Your task to perform on an android device: toggle airplane mode Image 0: 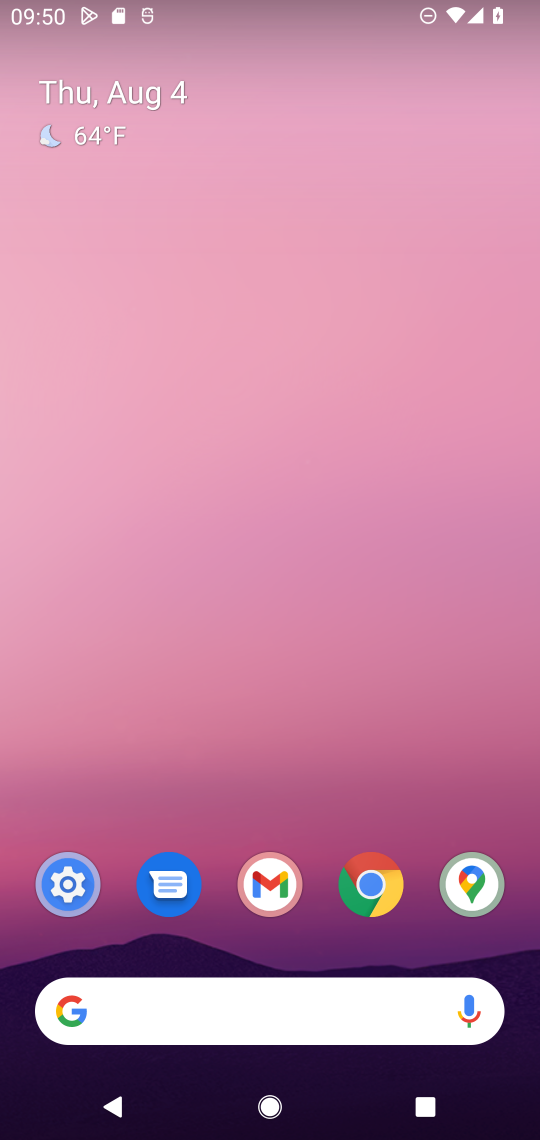
Step 0: drag from (145, 858) to (226, 62)
Your task to perform on an android device: toggle airplane mode Image 1: 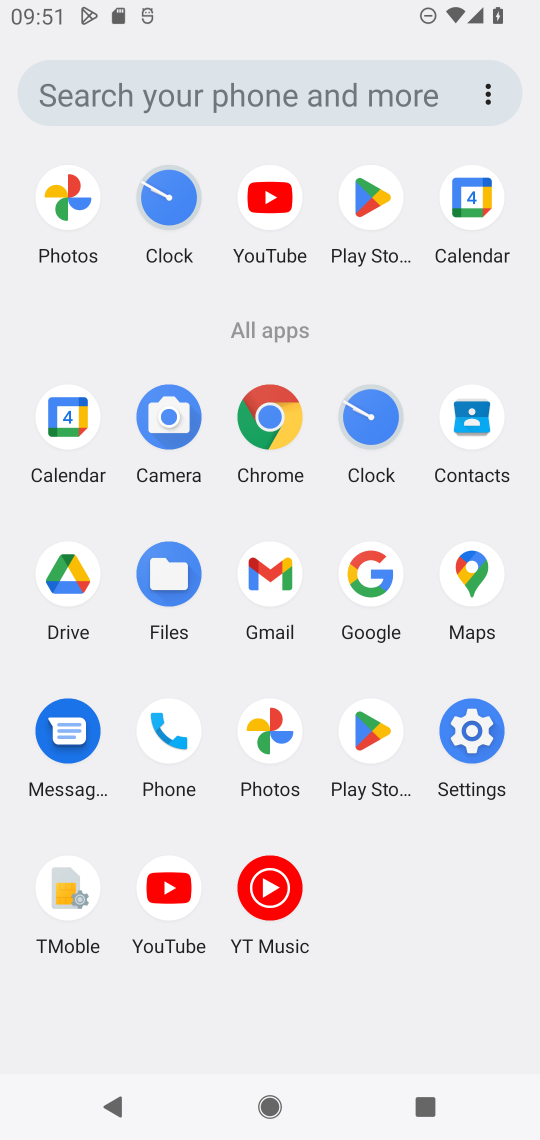
Step 1: click (474, 764)
Your task to perform on an android device: toggle airplane mode Image 2: 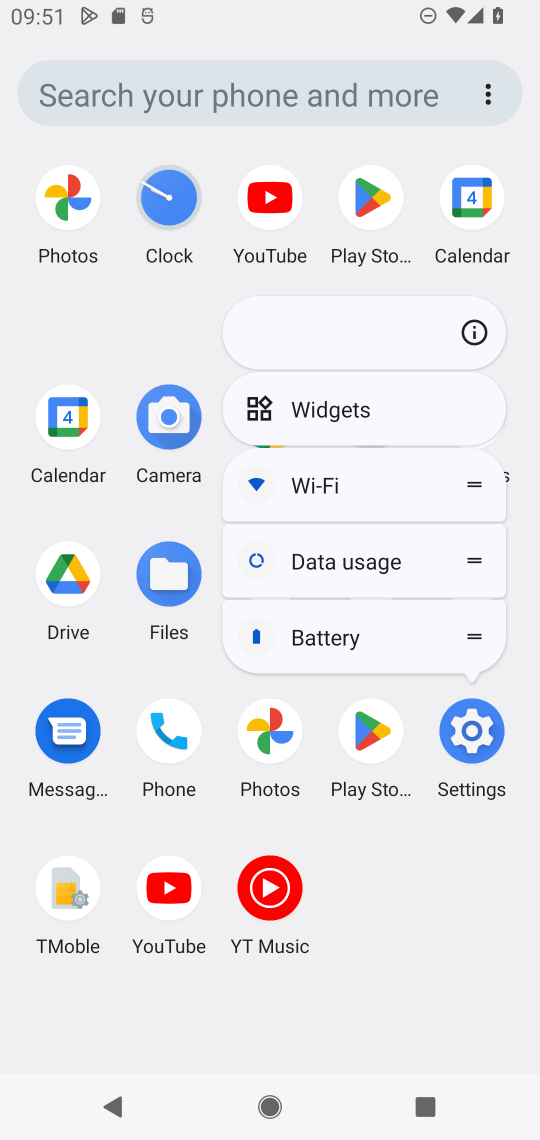
Step 2: click (474, 764)
Your task to perform on an android device: toggle airplane mode Image 3: 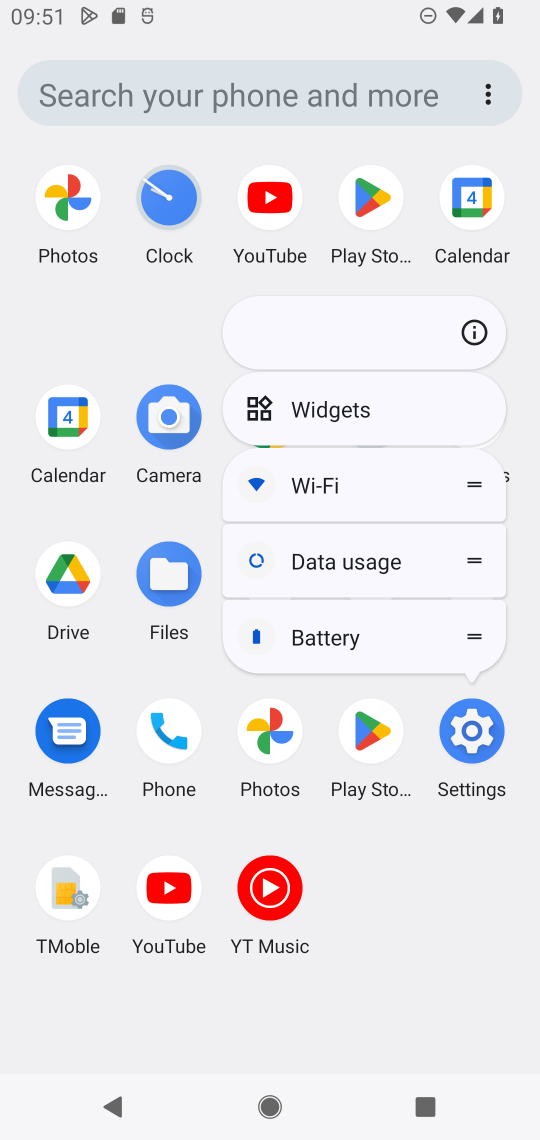
Step 3: click (474, 764)
Your task to perform on an android device: toggle airplane mode Image 4: 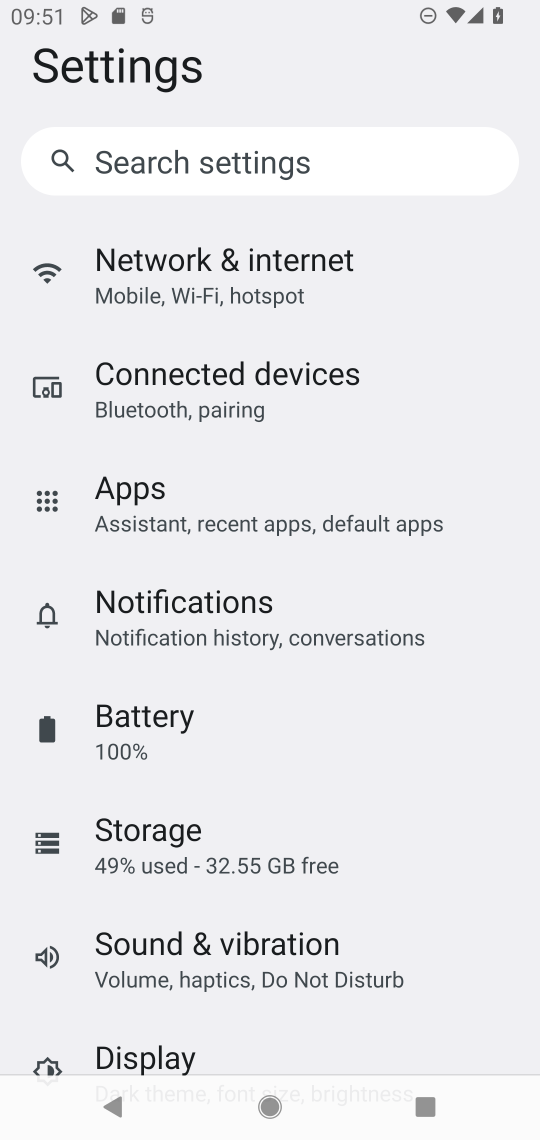
Step 4: click (291, 297)
Your task to perform on an android device: toggle airplane mode Image 5: 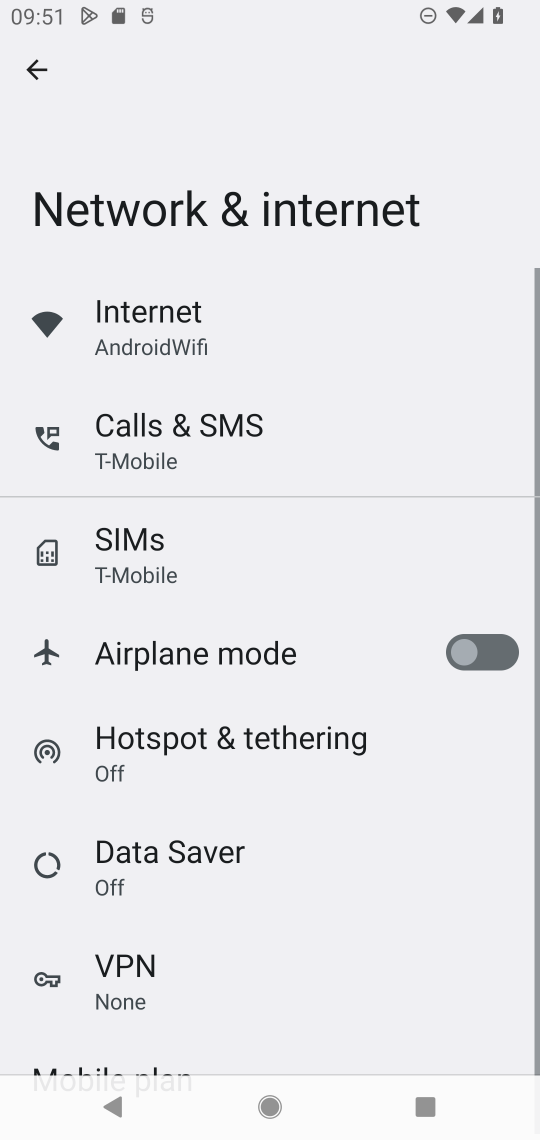
Step 5: click (480, 652)
Your task to perform on an android device: toggle airplane mode Image 6: 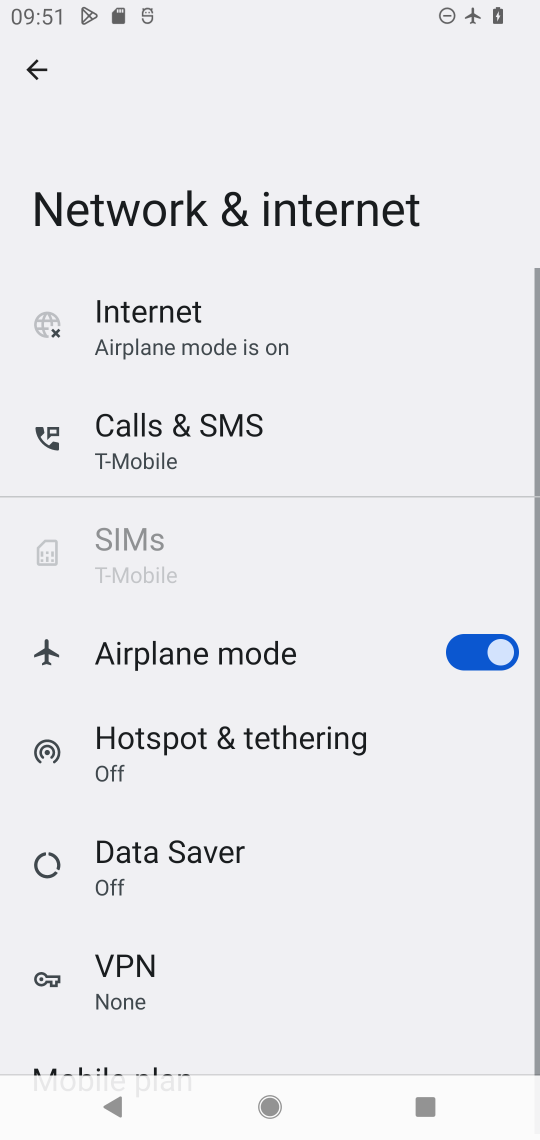
Step 6: task complete